Your task to perform on an android device: toggle translation in the chrome app Image 0: 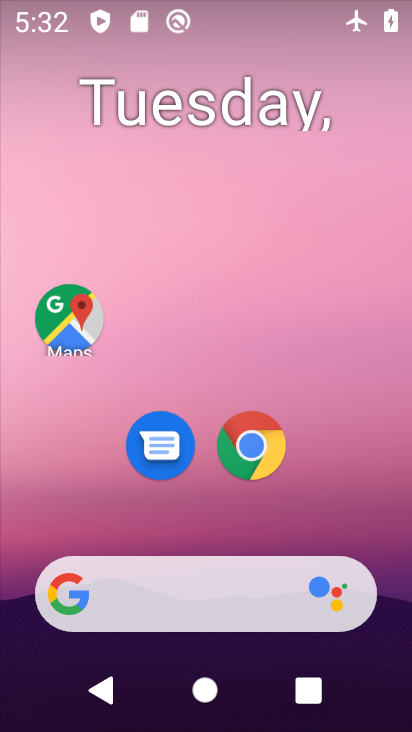
Step 0: drag from (306, 508) to (331, 100)
Your task to perform on an android device: toggle translation in the chrome app Image 1: 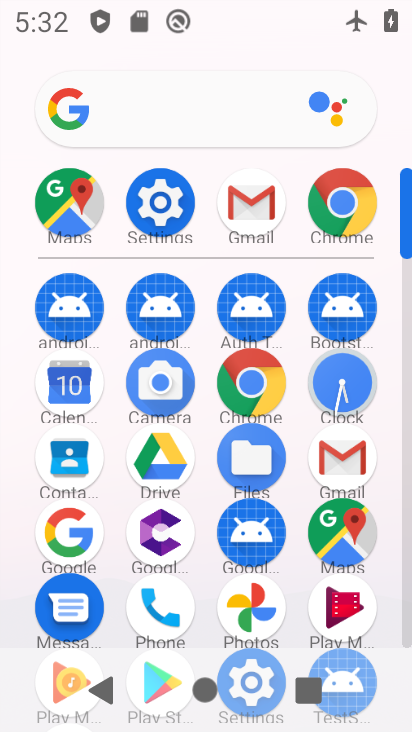
Step 1: drag from (340, 8) to (303, 480)
Your task to perform on an android device: toggle translation in the chrome app Image 2: 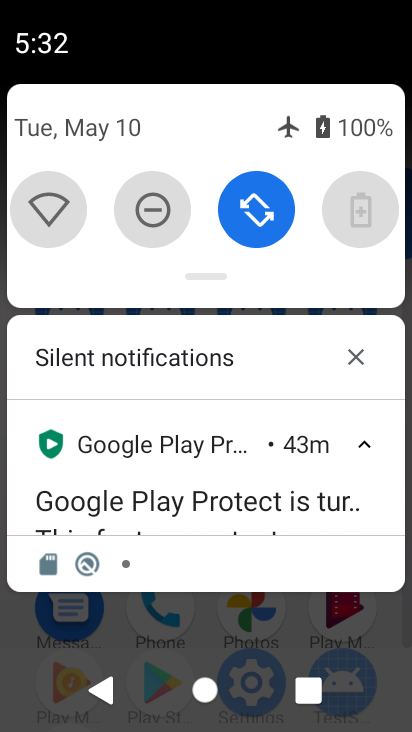
Step 2: drag from (313, 251) to (306, 592)
Your task to perform on an android device: toggle translation in the chrome app Image 3: 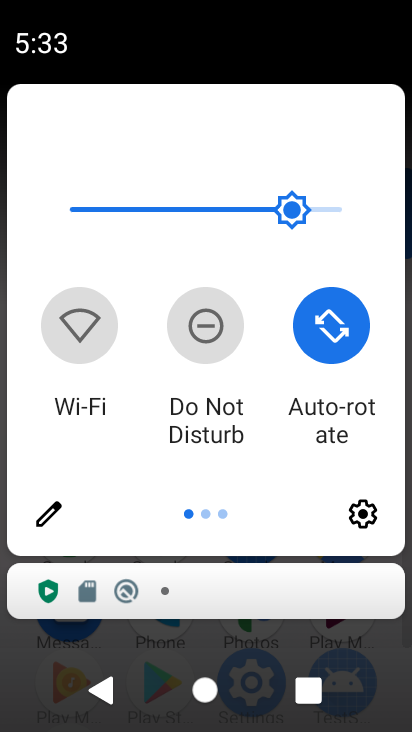
Step 3: drag from (379, 299) to (0, 276)
Your task to perform on an android device: toggle translation in the chrome app Image 4: 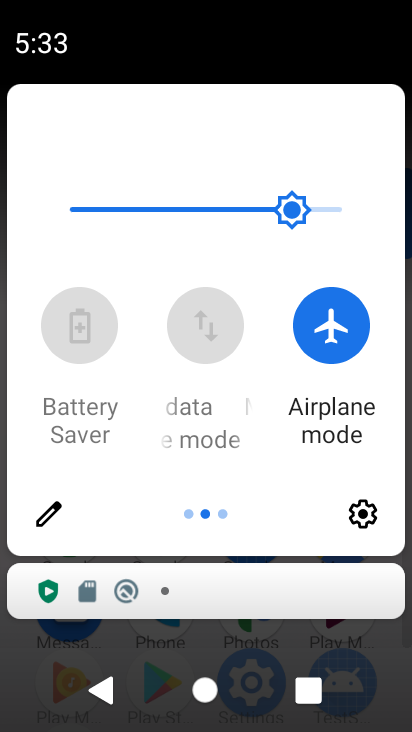
Step 4: click (319, 324)
Your task to perform on an android device: toggle translation in the chrome app Image 5: 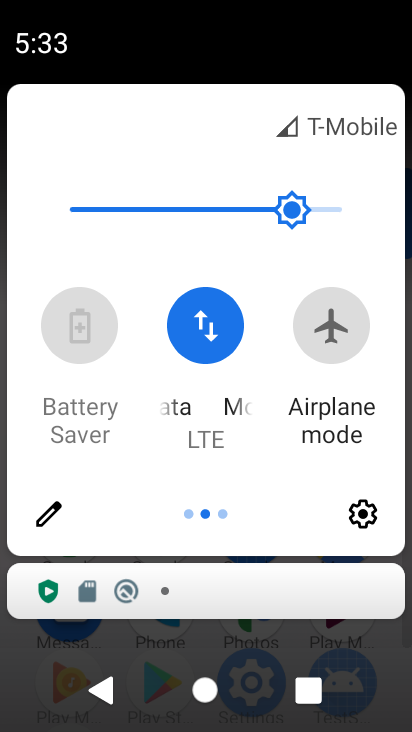
Step 5: drag from (318, 634) to (352, 245)
Your task to perform on an android device: toggle translation in the chrome app Image 6: 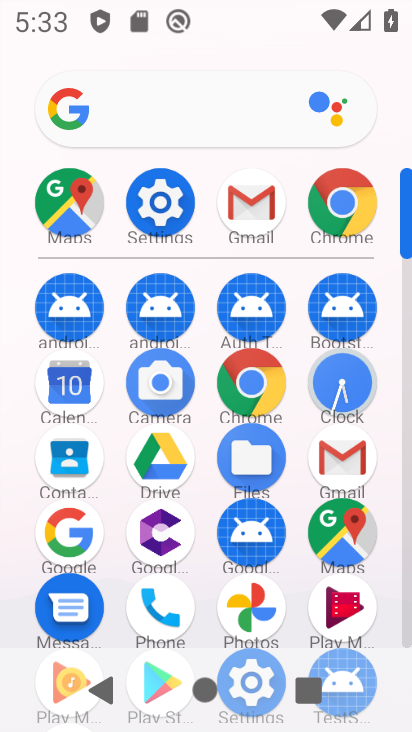
Step 6: click (338, 204)
Your task to perform on an android device: toggle translation in the chrome app Image 7: 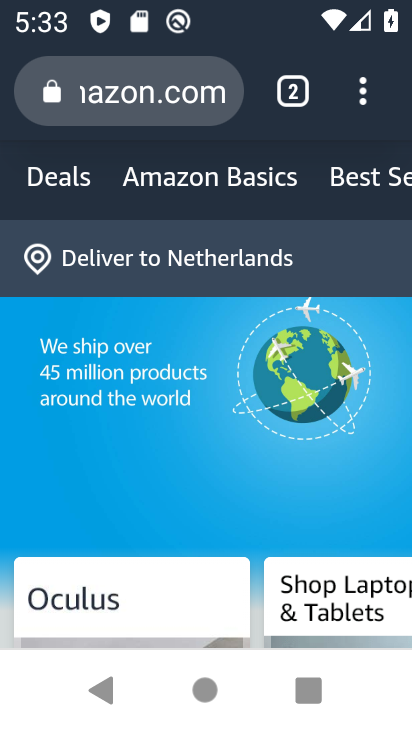
Step 7: drag from (362, 100) to (258, 484)
Your task to perform on an android device: toggle translation in the chrome app Image 8: 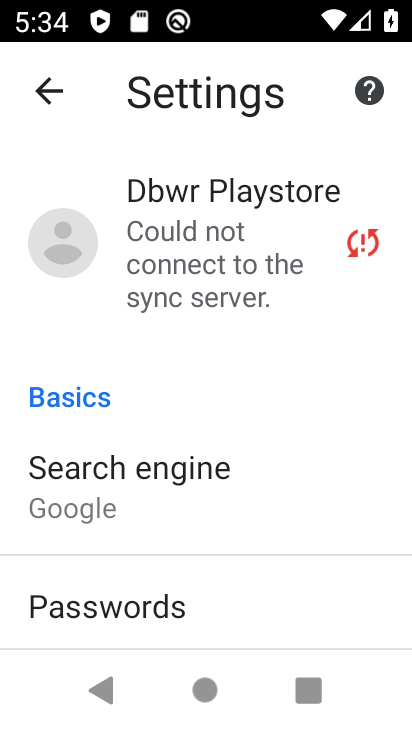
Step 8: drag from (325, 595) to (334, 185)
Your task to perform on an android device: toggle translation in the chrome app Image 9: 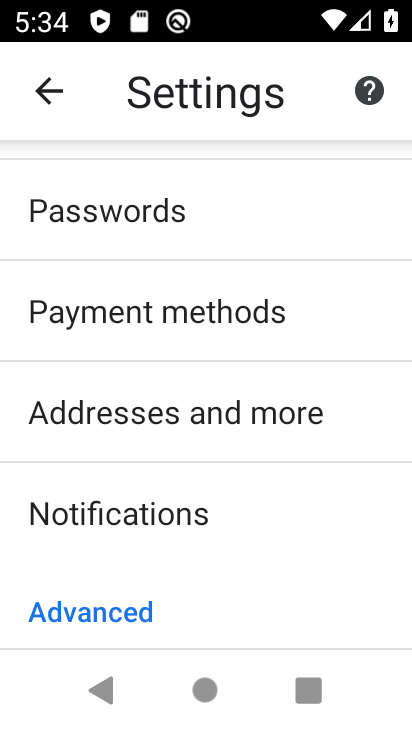
Step 9: drag from (281, 590) to (326, 182)
Your task to perform on an android device: toggle translation in the chrome app Image 10: 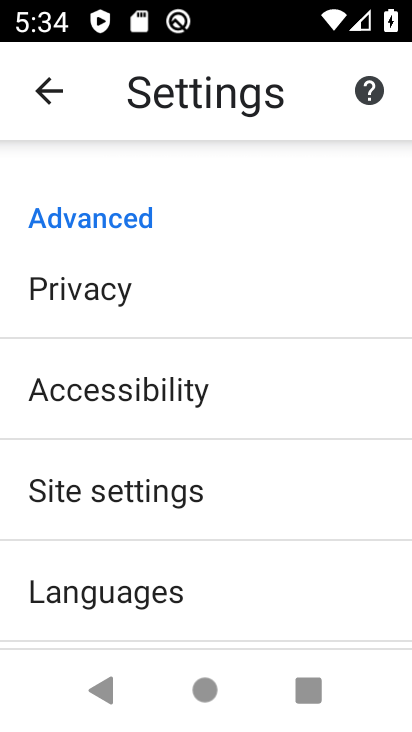
Step 10: click (137, 590)
Your task to perform on an android device: toggle translation in the chrome app Image 11: 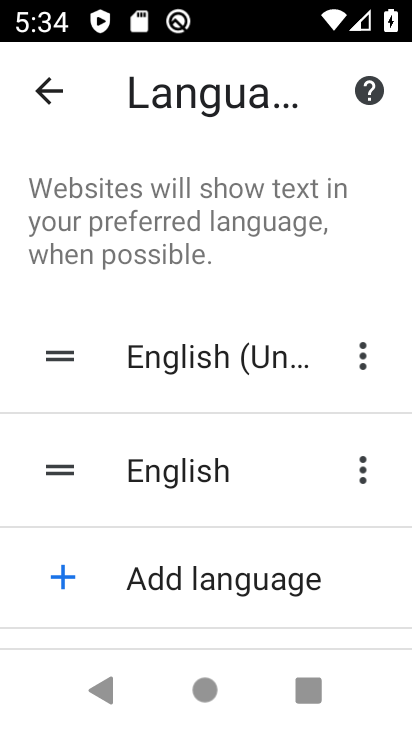
Step 11: drag from (339, 603) to (343, 256)
Your task to perform on an android device: toggle translation in the chrome app Image 12: 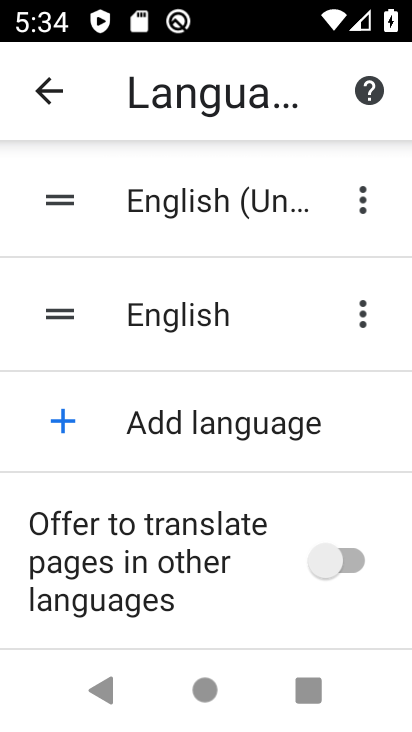
Step 12: click (340, 556)
Your task to perform on an android device: toggle translation in the chrome app Image 13: 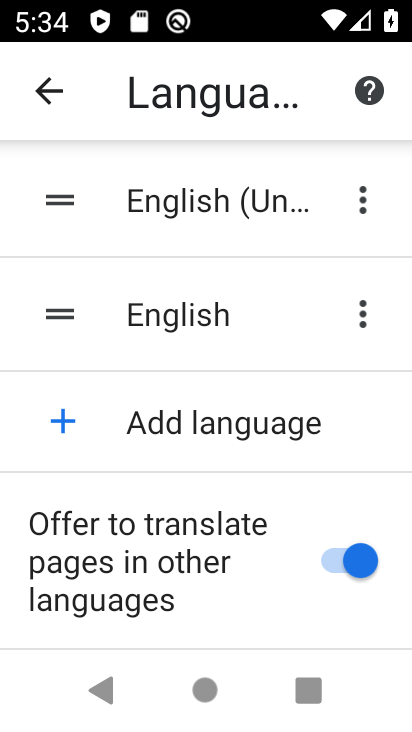
Step 13: task complete